Your task to perform on an android device: Open calendar and show me the first week of next month Image 0: 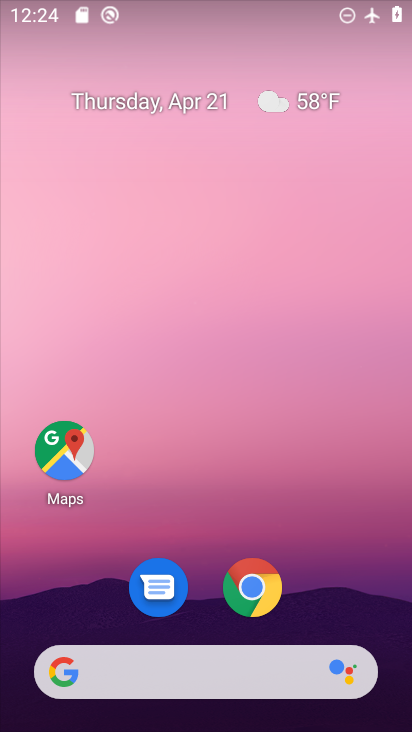
Step 0: click (332, 187)
Your task to perform on an android device: Open calendar and show me the first week of next month Image 1: 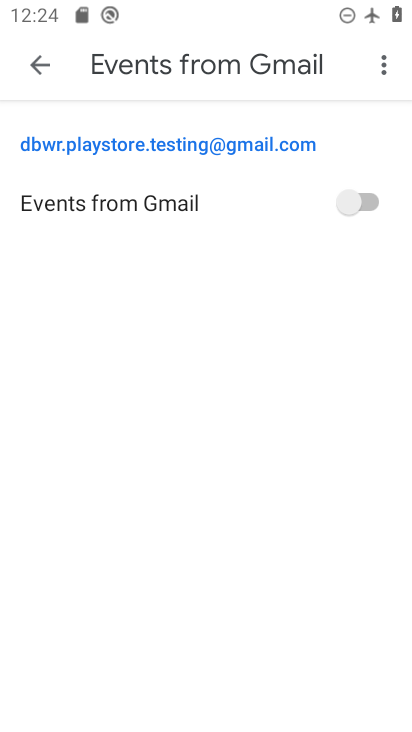
Step 1: press home button
Your task to perform on an android device: Open calendar and show me the first week of next month Image 2: 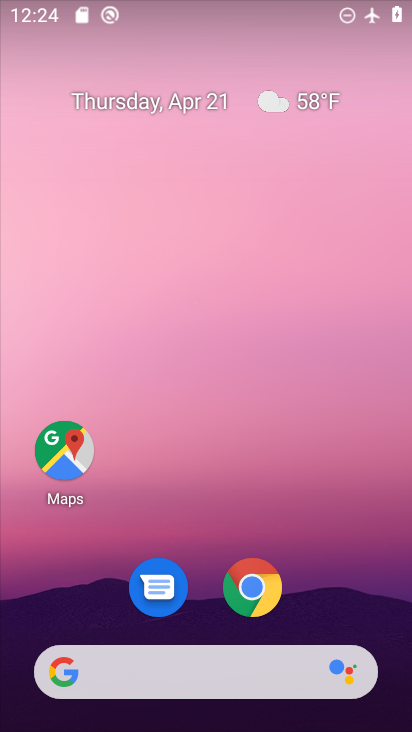
Step 2: drag from (200, 579) to (257, 163)
Your task to perform on an android device: Open calendar and show me the first week of next month Image 3: 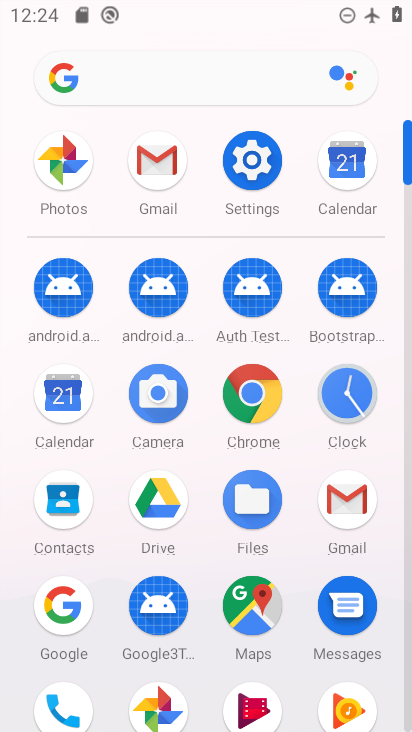
Step 3: click (62, 386)
Your task to perform on an android device: Open calendar and show me the first week of next month Image 4: 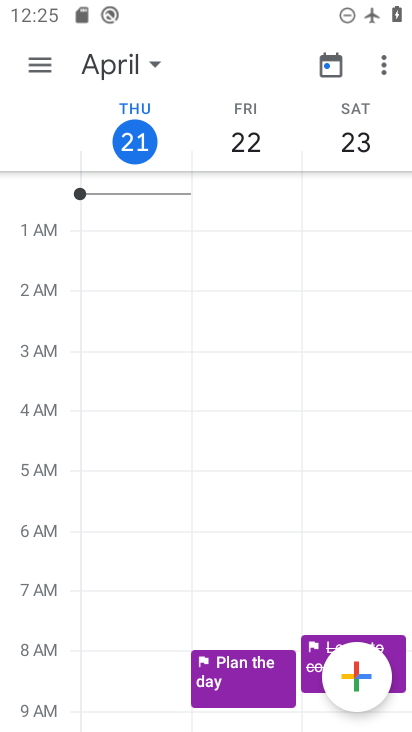
Step 4: click (37, 67)
Your task to perform on an android device: Open calendar and show me the first week of next month Image 5: 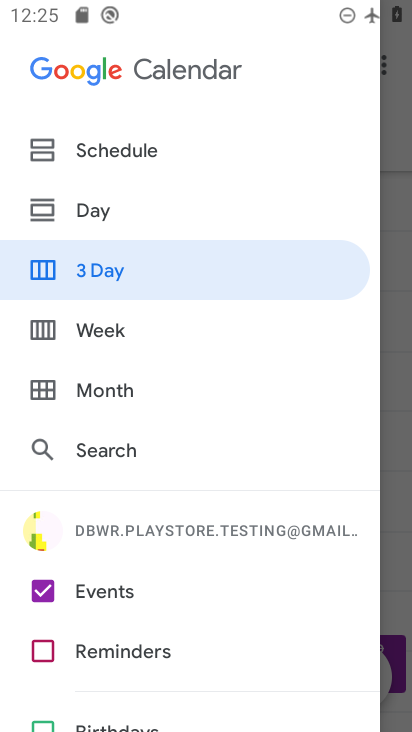
Step 5: click (105, 327)
Your task to perform on an android device: Open calendar and show me the first week of next month Image 6: 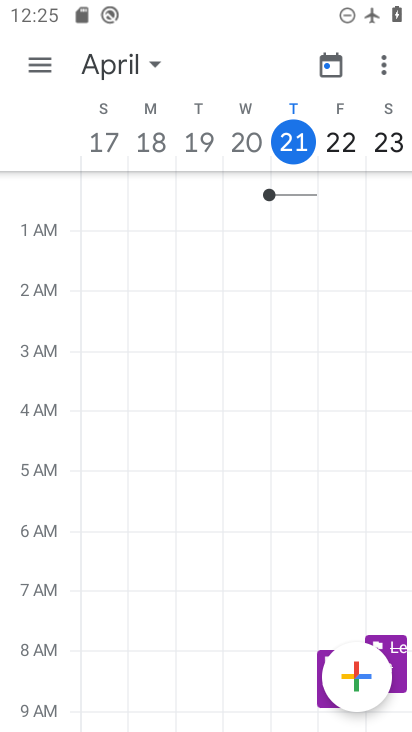
Step 6: task complete